Your task to perform on an android device: Go to Google Image 0: 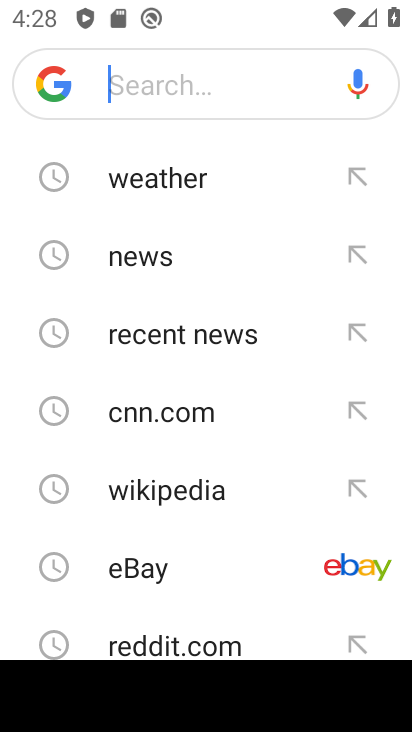
Step 0: press back button
Your task to perform on an android device: Go to Google Image 1: 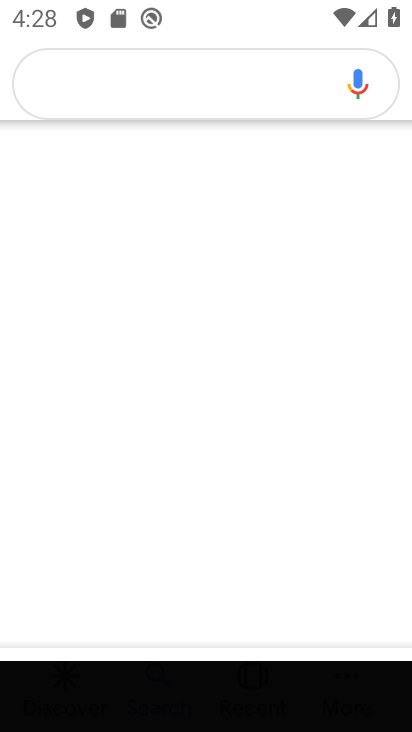
Step 1: press back button
Your task to perform on an android device: Go to Google Image 2: 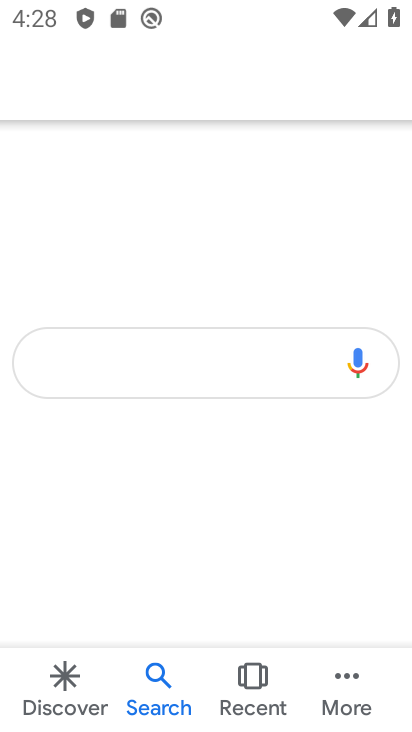
Step 2: press back button
Your task to perform on an android device: Go to Google Image 3: 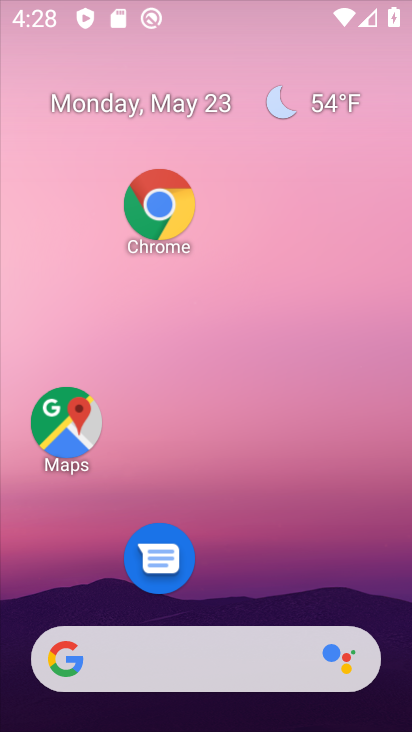
Step 3: press back button
Your task to perform on an android device: Go to Google Image 4: 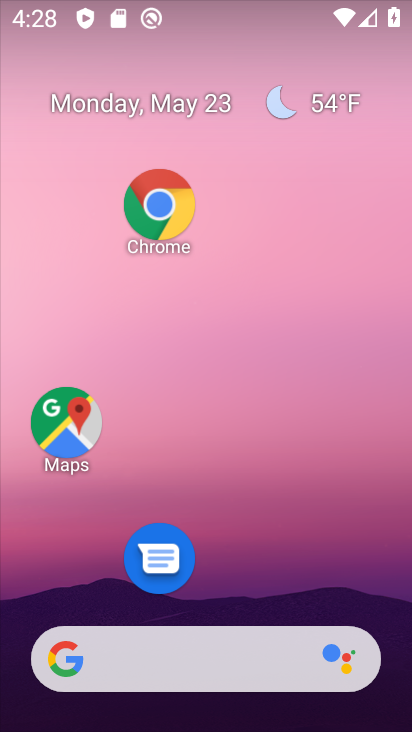
Step 4: drag from (297, 617) to (145, 69)
Your task to perform on an android device: Go to Google Image 5: 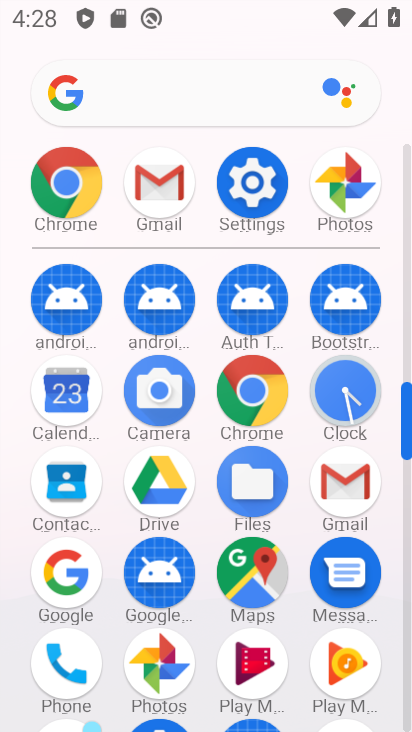
Step 5: click (62, 567)
Your task to perform on an android device: Go to Google Image 6: 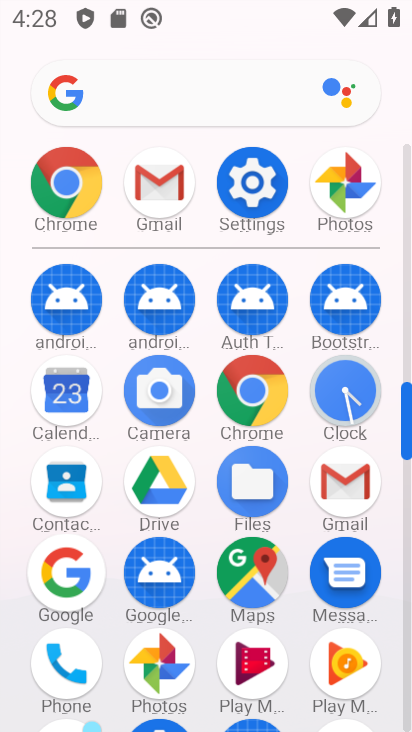
Step 6: click (60, 568)
Your task to perform on an android device: Go to Google Image 7: 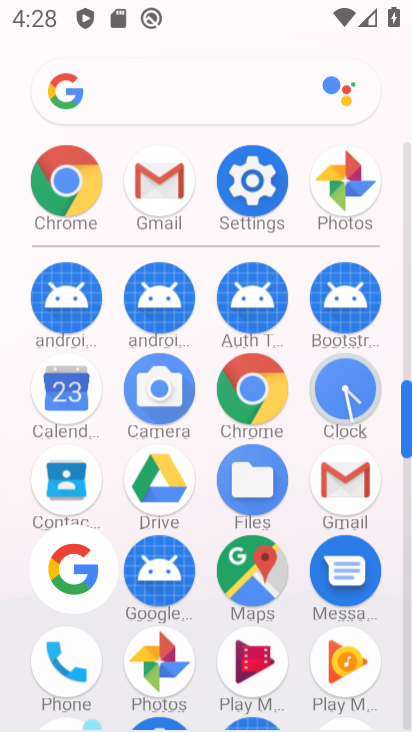
Step 7: click (59, 567)
Your task to perform on an android device: Go to Google Image 8: 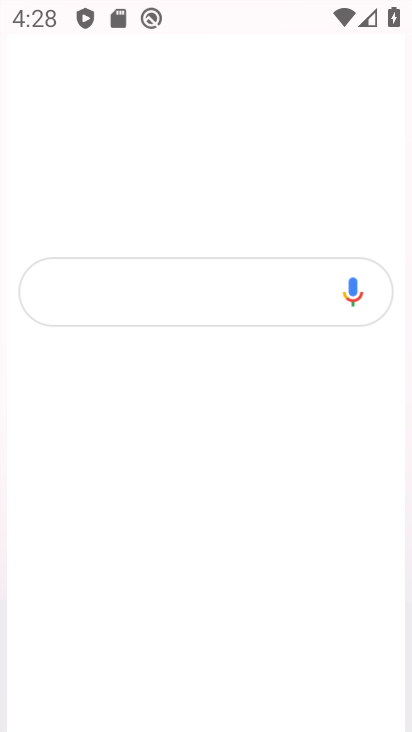
Step 8: click (59, 566)
Your task to perform on an android device: Go to Google Image 9: 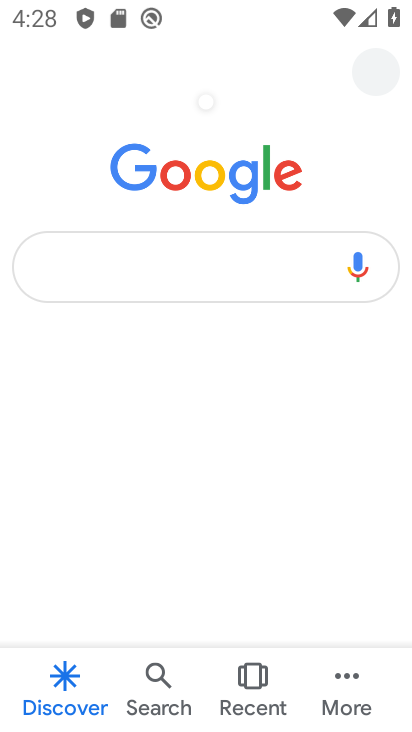
Step 9: click (57, 564)
Your task to perform on an android device: Go to Google Image 10: 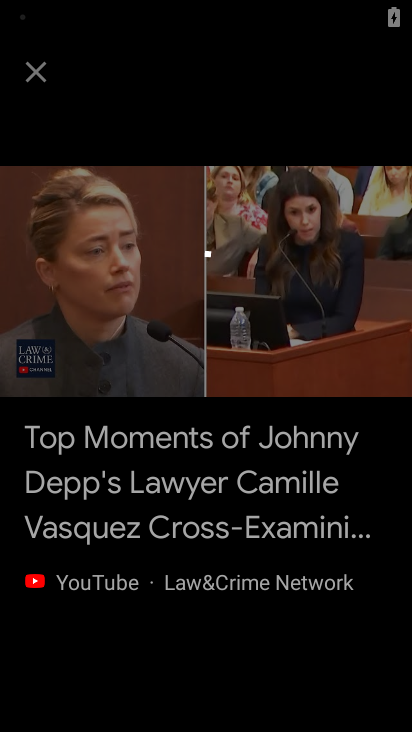
Step 10: click (40, 71)
Your task to perform on an android device: Go to Google Image 11: 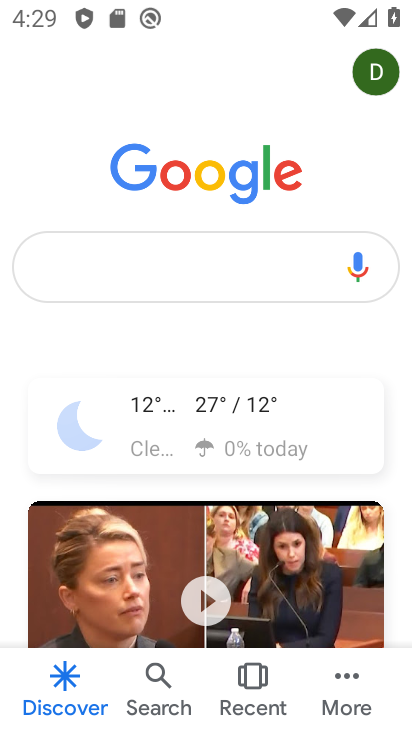
Step 11: click (350, 688)
Your task to perform on an android device: Go to Google Image 12: 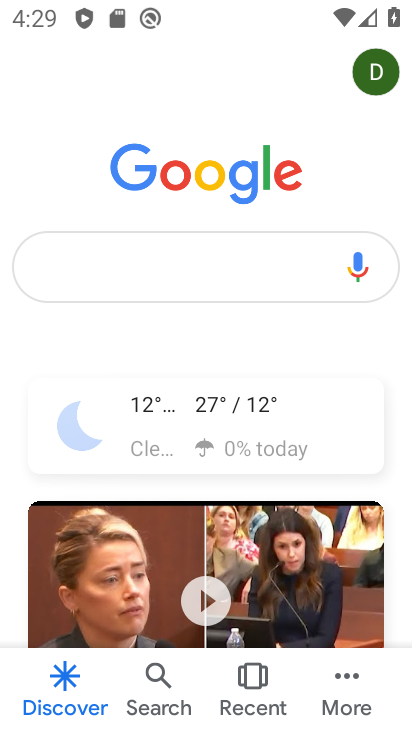
Step 12: click (350, 688)
Your task to perform on an android device: Go to Google Image 13: 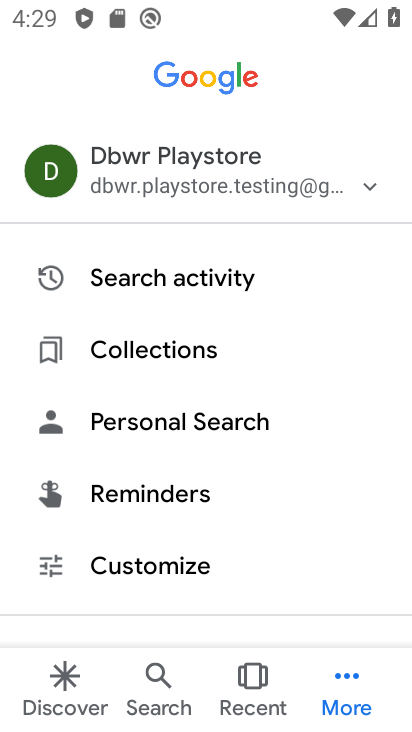
Step 13: click (350, 688)
Your task to perform on an android device: Go to Google Image 14: 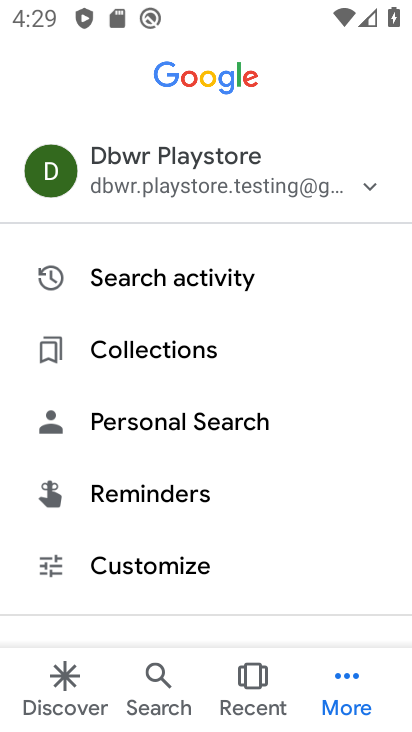
Step 14: drag from (206, 557) to (173, 136)
Your task to perform on an android device: Go to Google Image 15: 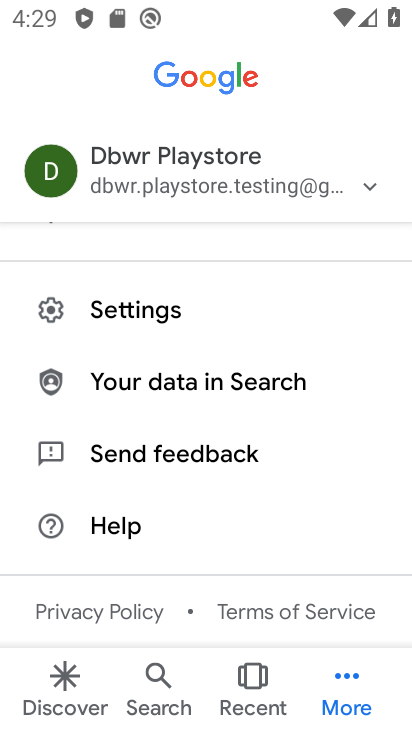
Step 15: drag from (225, 529) to (277, 286)
Your task to perform on an android device: Go to Google Image 16: 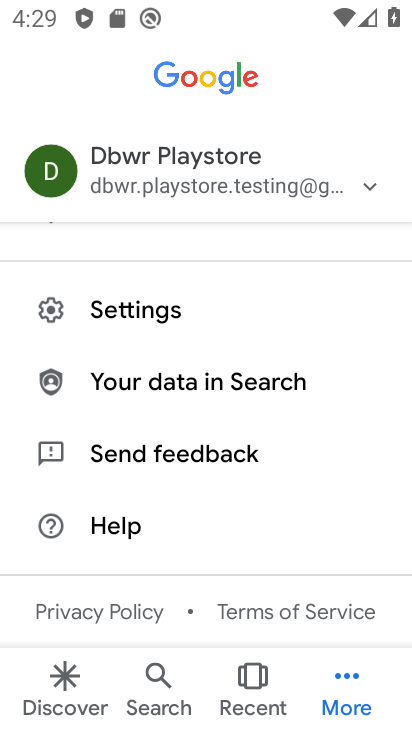
Step 16: click (121, 297)
Your task to perform on an android device: Go to Google Image 17: 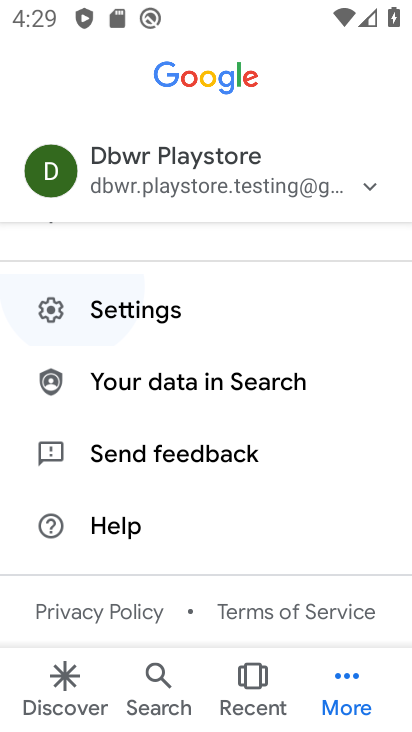
Step 17: click (126, 300)
Your task to perform on an android device: Go to Google Image 18: 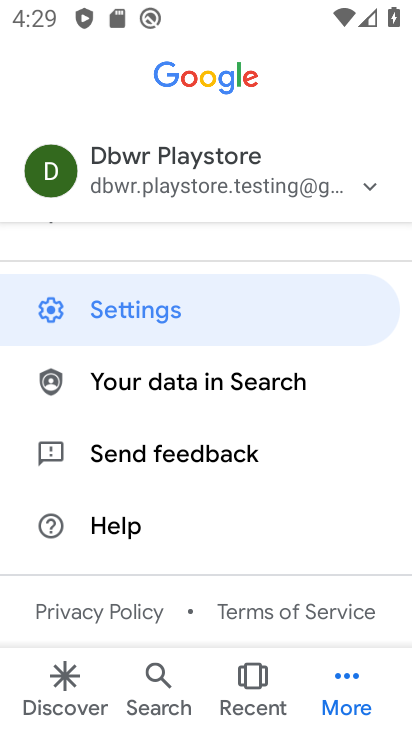
Step 18: click (127, 300)
Your task to perform on an android device: Go to Google Image 19: 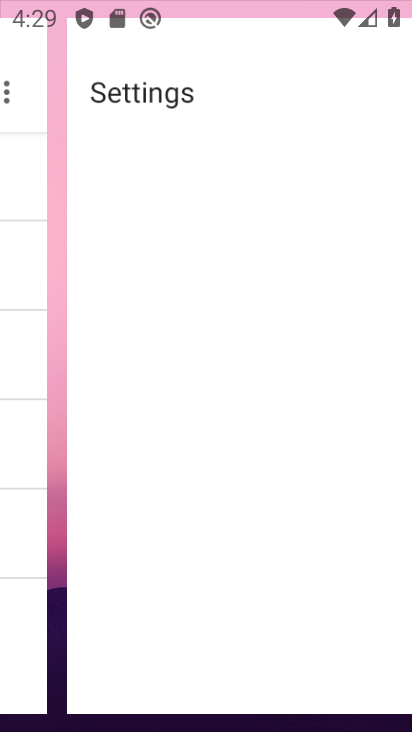
Step 19: click (128, 301)
Your task to perform on an android device: Go to Google Image 20: 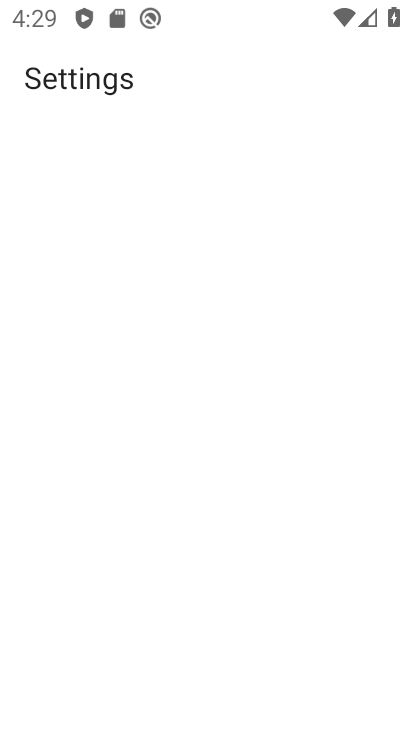
Step 20: click (125, 302)
Your task to perform on an android device: Go to Google Image 21: 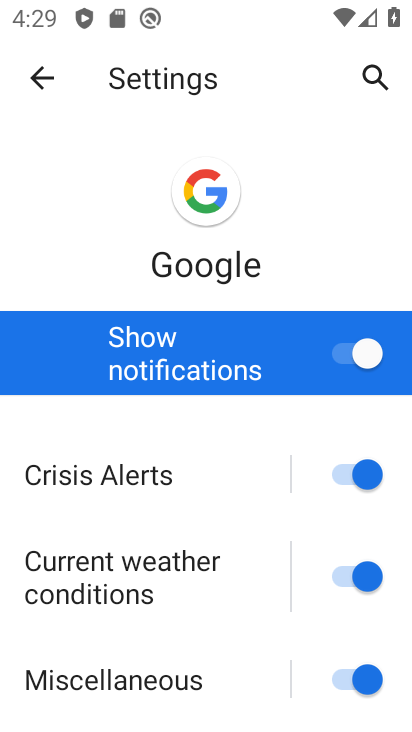
Step 21: click (35, 68)
Your task to perform on an android device: Go to Google Image 22: 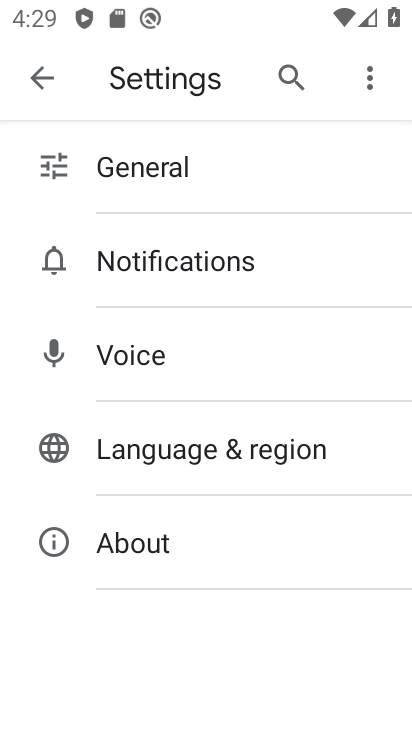
Step 22: click (35, 78)
Your task to perform on an android device: Go to Google Image 23: 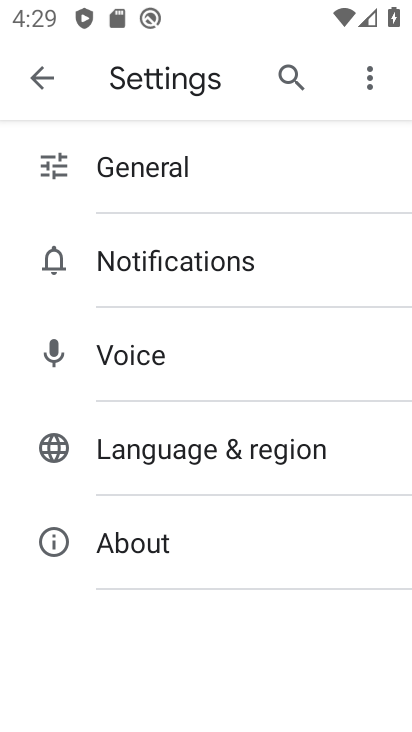
Step 23: click (35, 78)
Your task to perform on an android device: Go to Google Image 24: 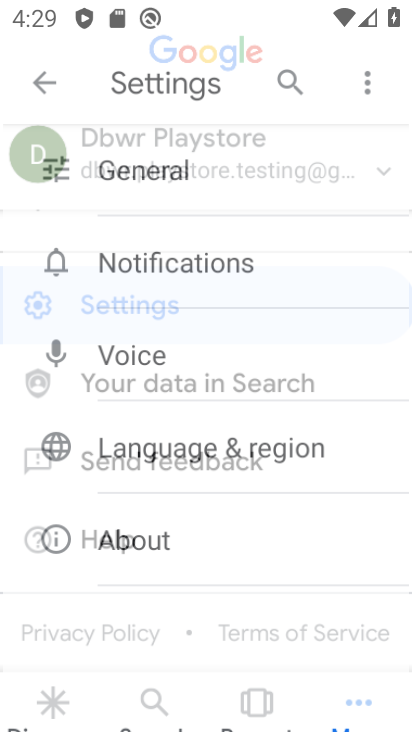
Step 24: click (35, 78)
Your task to perform on an android device: Go to Google Image 25: 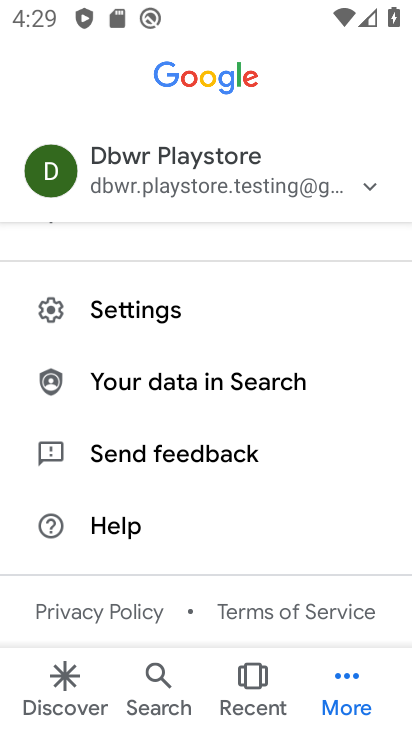
Step 25: click (43, 80)
Your task to perform on an android device: Go to Google Image 26: 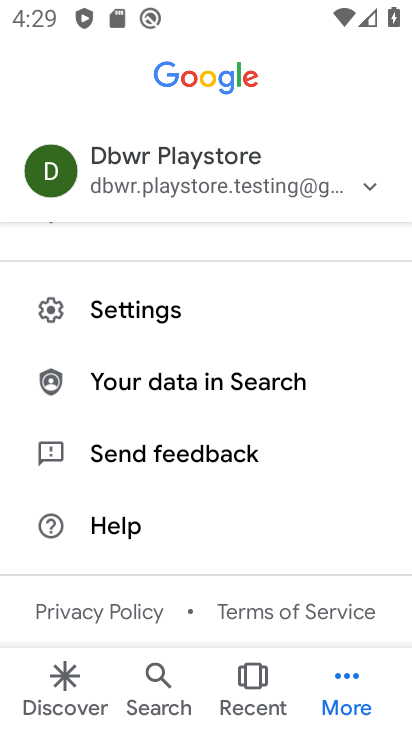
Step 26: click (44, 80)
Your task to perform on an android device: Go to Google Image 27: 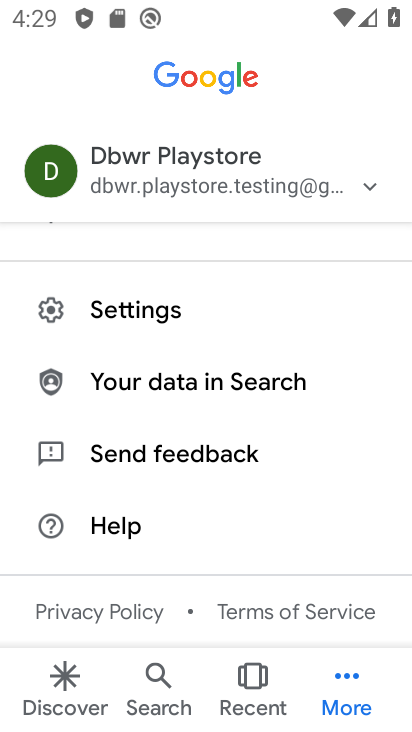
Step 27: task complete